Your task to perform on an android device: Go to settings Image 0: 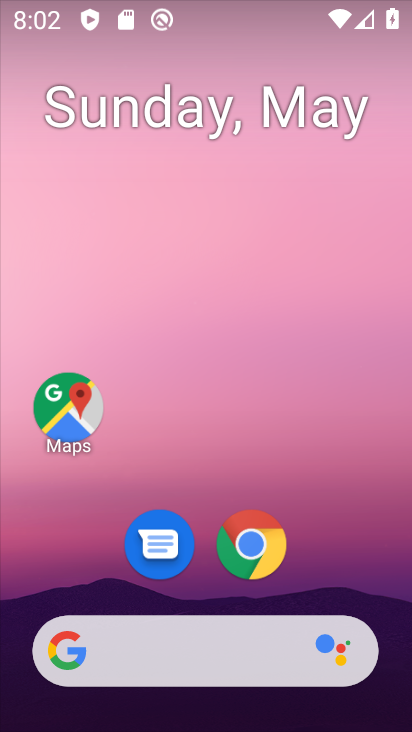
Step 0: drag from (389, 569) to (291, 0)
Your task to perform on an android device: Go to settings Image 1: 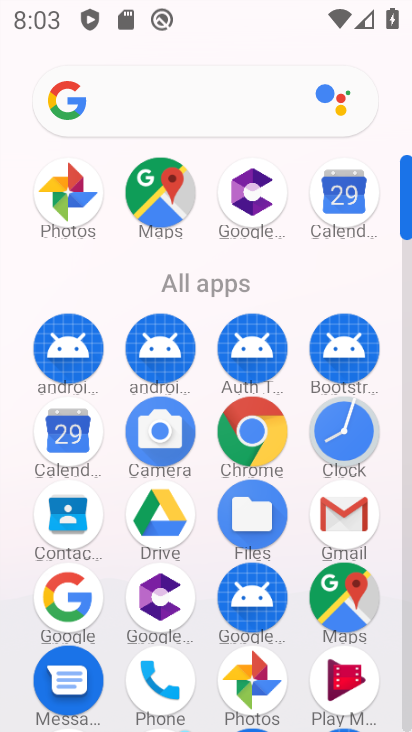
Step 1: drag from (374, 566) to (337, 243)
Your task to perform on an android device: Go to settings Image 2: 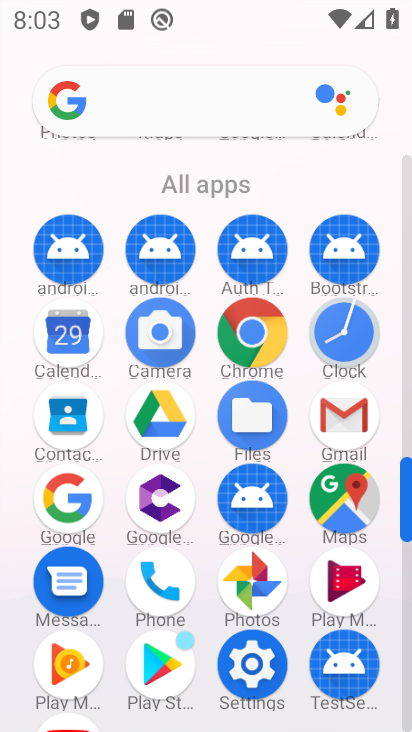
Step 2: click (267, 671)
Your task to perform on an android device: Go to settings Image 3: 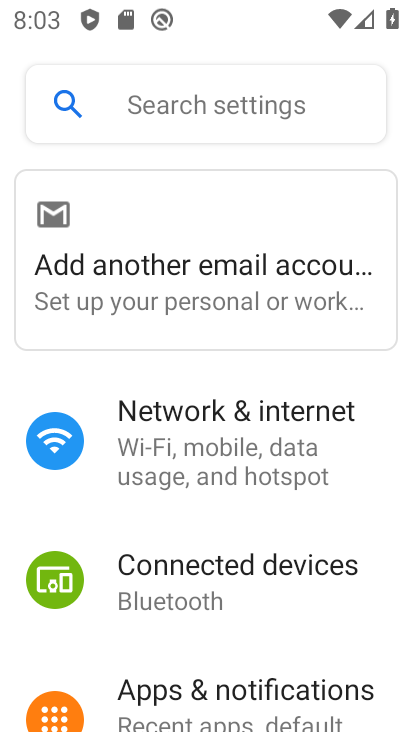
Step 3: task complete